Your task to perform on an android device: clear history in the chrome app Image 0: 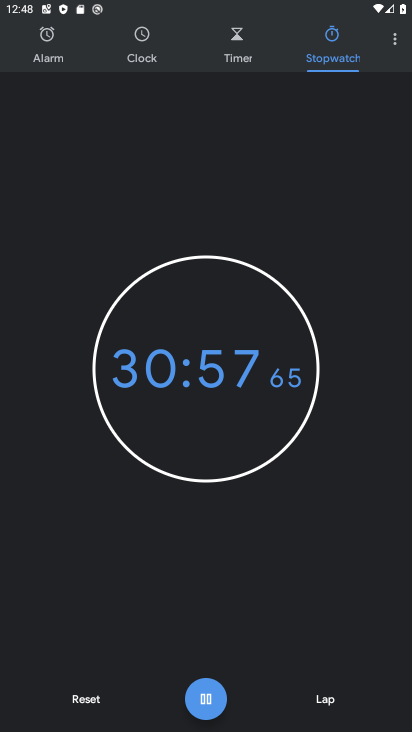
Step 0: press home button
Your task to perform on an android device: clear history in the chrome app Image 1: 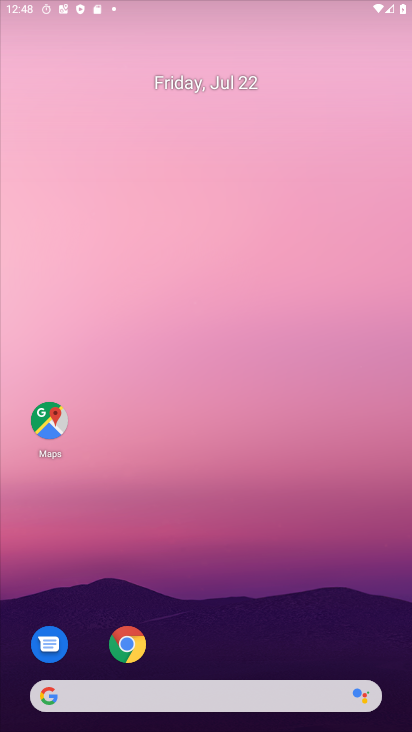
Step 1: drag from (230, 711) to (247, 51)
Your task to perform on an android device: clear history in the chrome app Image 2: 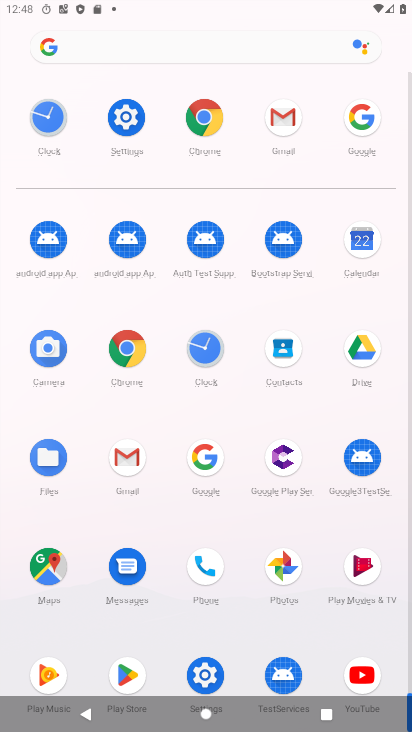
Step 2: click (133, 360)
Your task to perform on an android device: clear history in the chrome app Image 3: 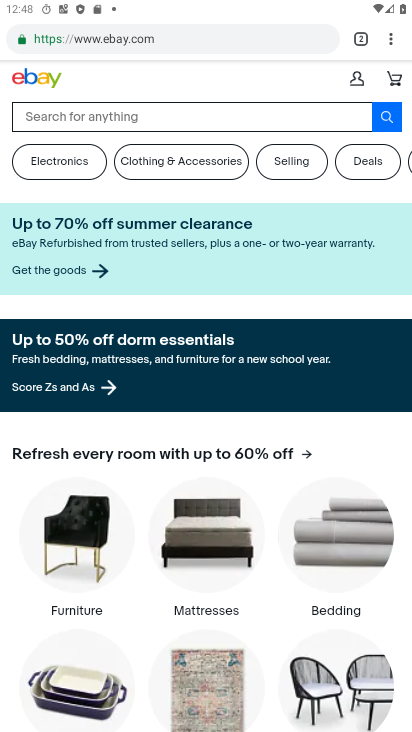
Step 3: click (393, 40)
Your task to perform on an android device: clear history in the chrome app Image 4: 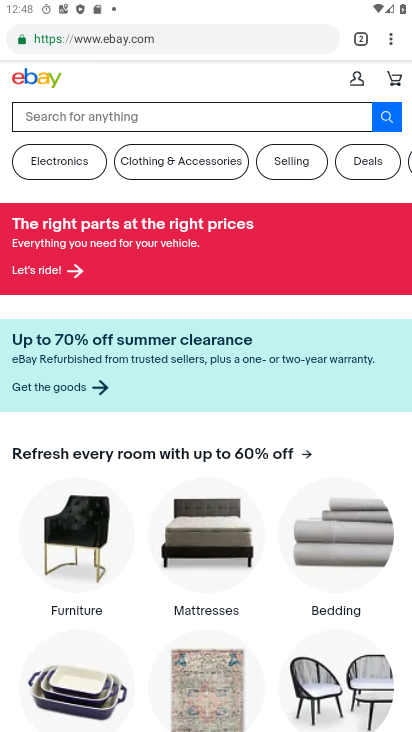
Step 4: click (393, 40)
Your task to perform on an android device: clear history in the chrome app Image 5: 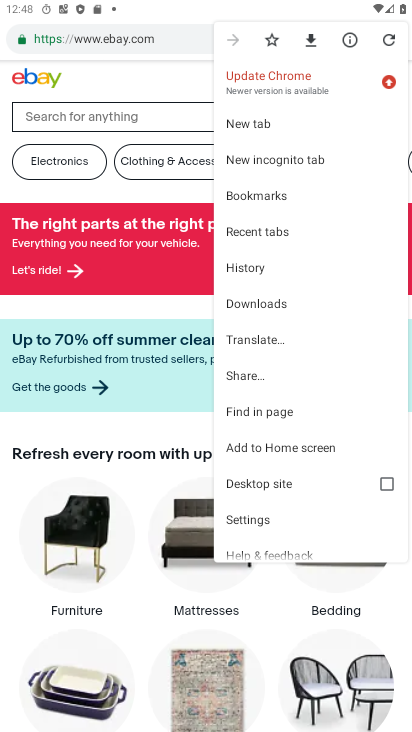
Step 5: click (253, 266)
Your task to perform on an android device: clear history in the chrome app Image 6: 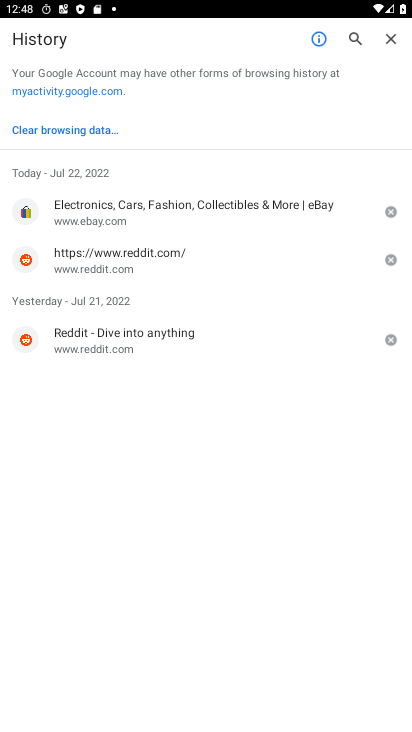
Step 6: click (66, 131)
Your task to perform on an android device: clear history in the chrome app Image 7: 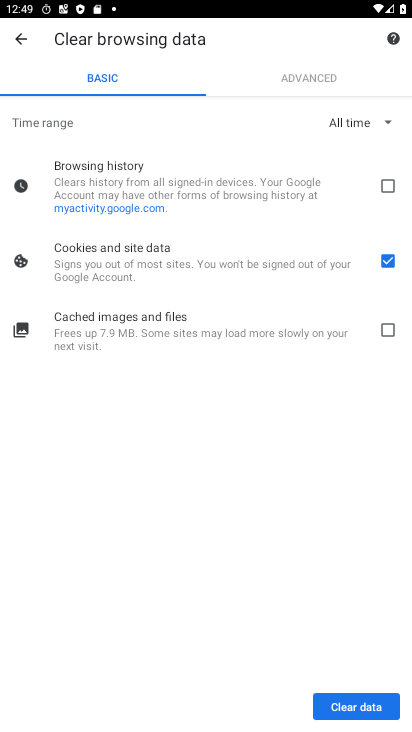
Step 7: click (378, 188)
Your task to perform on an android device: clear history in the chrome app Image 8: 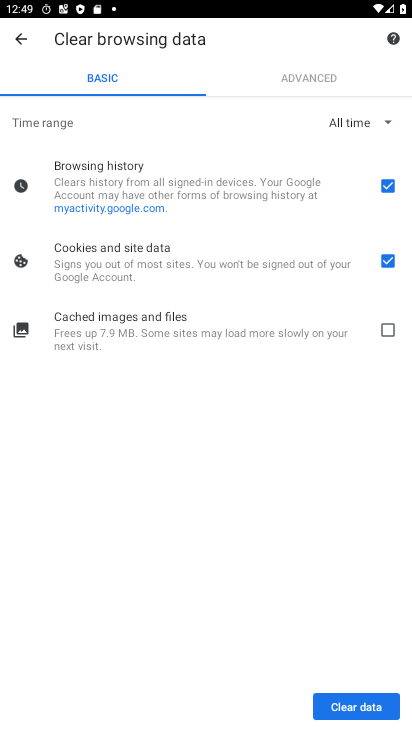
Step 8: click (388, 243)
Your task to perform on an android device: clear history in the chrome app Image 9: 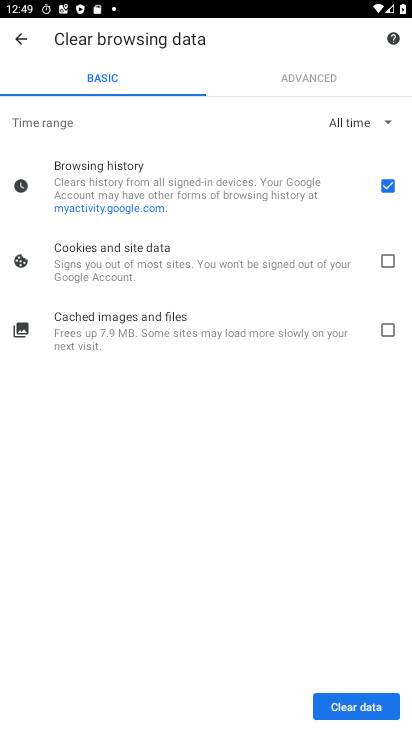
Step 9: click (344, 717)
Your task to perform on an android device: clear history in the chrome app Image 10: 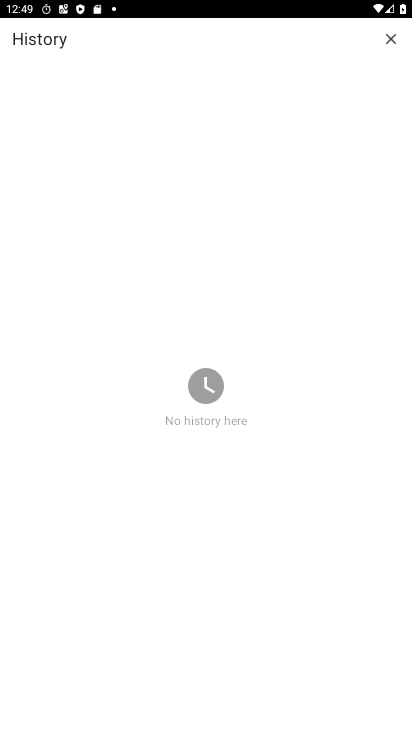
Step 10: task complete